Your task to perform on an android device: Go to Android settings Image 0: 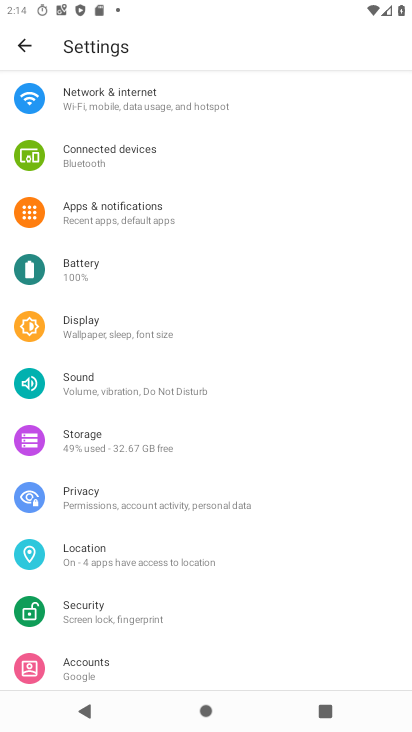
Step 0: drag from (207, 642) to (251, 197)
Your task to perform on an android device: Go to Android settings Image 1: 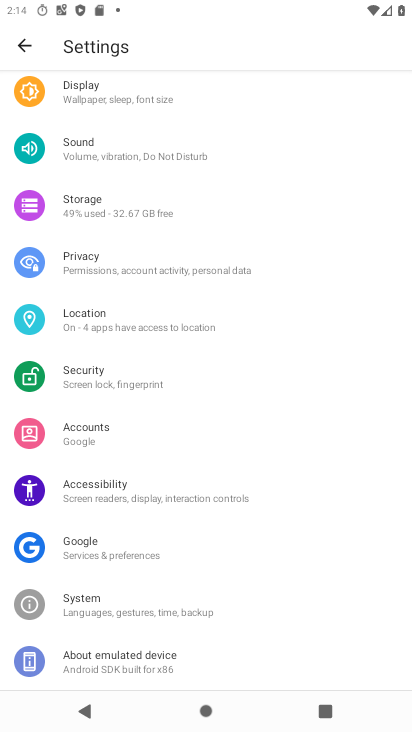
Step 1: task complete